Your task to perform on an android device: all mails in gmail Image 0: 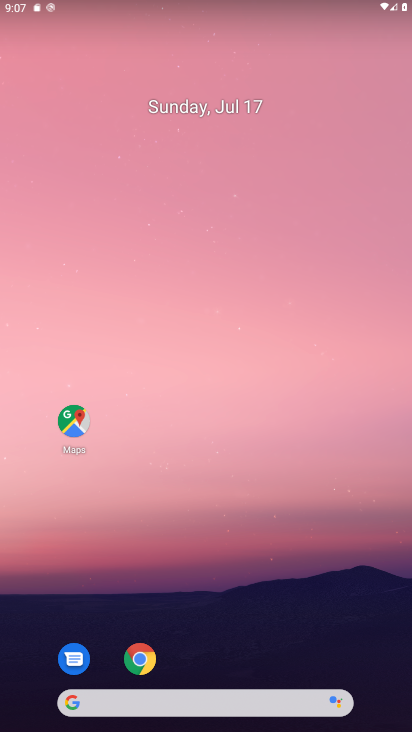
Step 0: drag from (226, 705) to (22, 100)
Your task to perform on an android device: all mails in gmail Image 1: 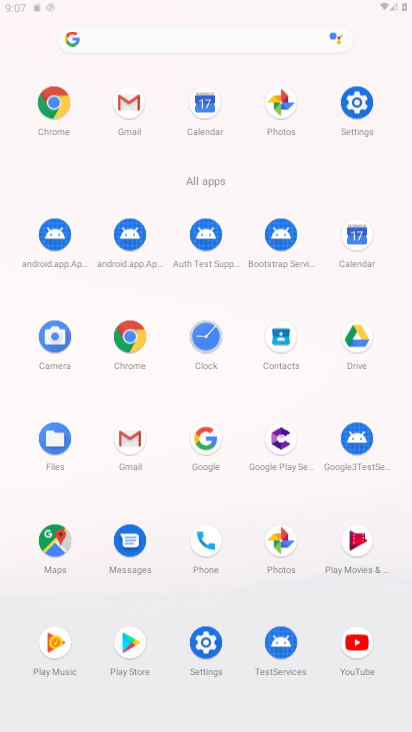
Step 1: click (126, 107)
Your task to perform on an android device: all mails in gmail Image 2: 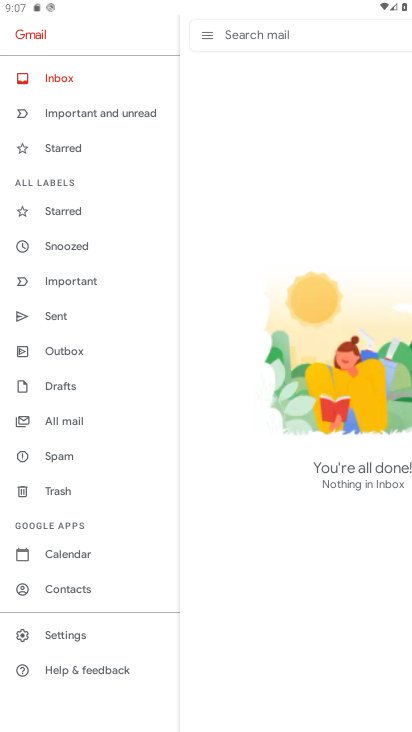
Step 2: click (77, 425)
Your task to perform on an android device: all mails in gmail Image 3: 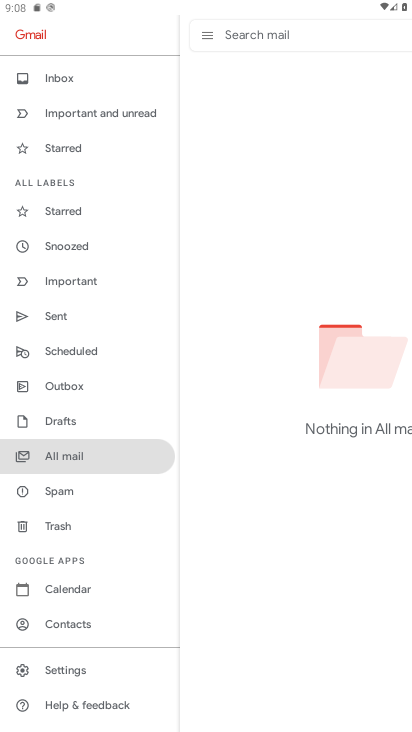
Step 3: task complete